Your task to perform on an android device: toggle location history Image 0: 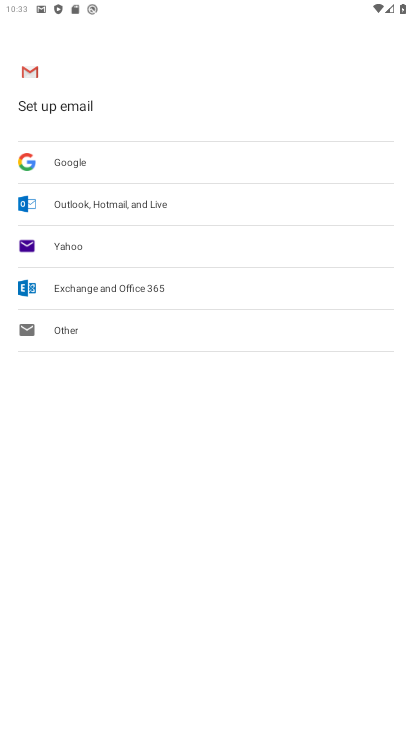
Step 0: press home button
Your task to perform on an android device: toggle location history Image 1: 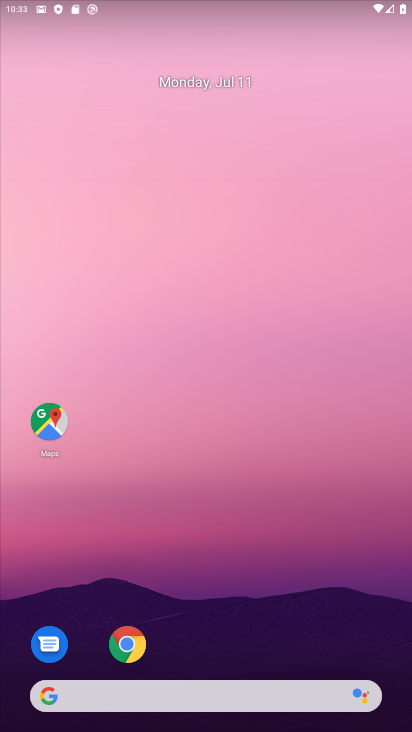
Step 1: drag from (188, 619) to (207, 148)
Your task to perform on an android device: toggle location history Image 2: 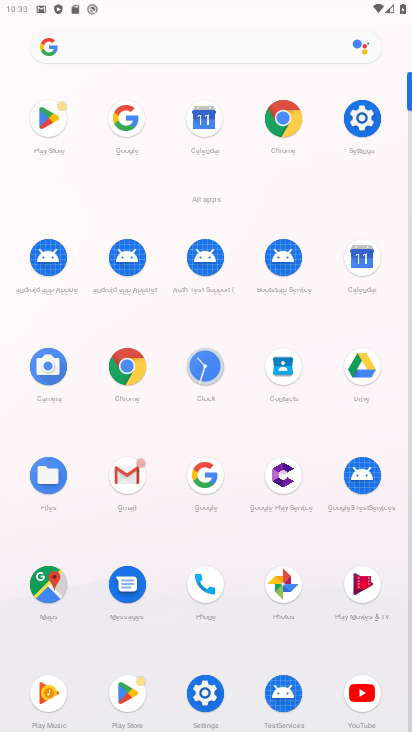
Step 2: click (372, 125)
Your task to perform on an android device: toggle location history Image 3: 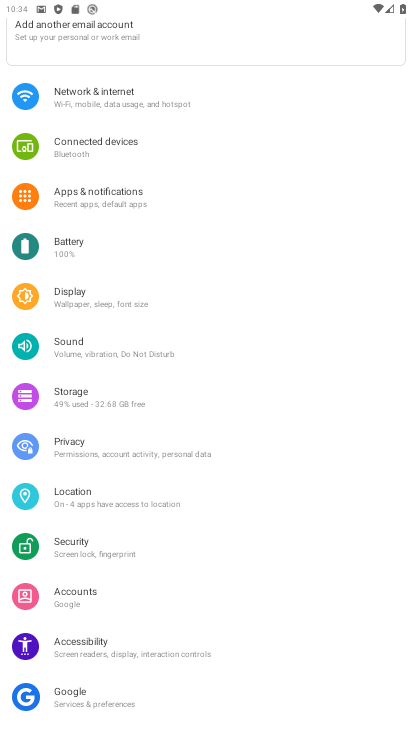
Step 3: click (116, 499)
Your task to perform on an android device: toggle location history Image 4: 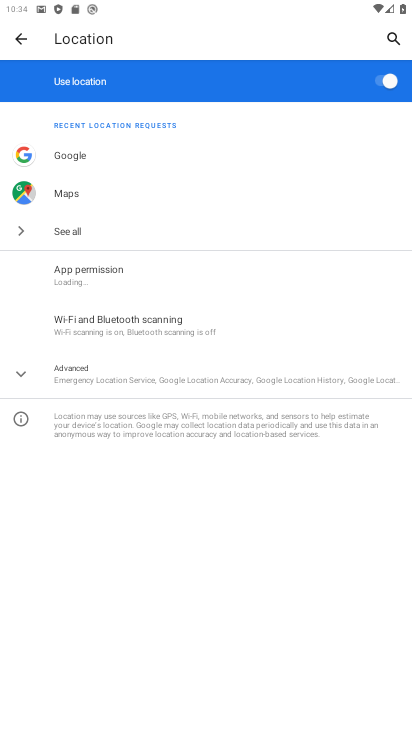
Step 4: click (141, 365)
Your task to perform on an android device: toggle location history Image 5: 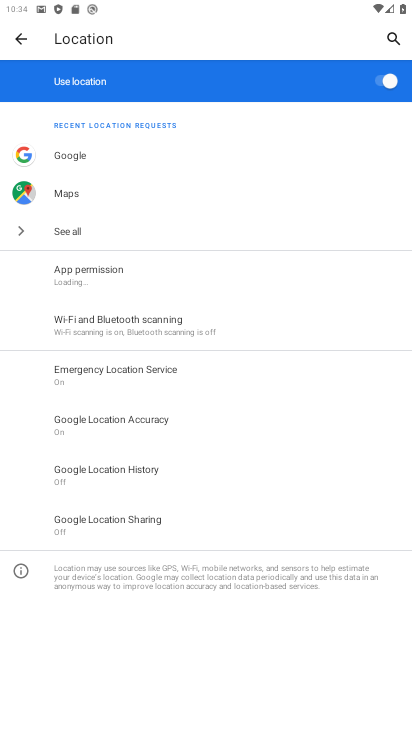
Step 5: click (154, 479)
Your task to perform on an android device: toggle location history Image 6: 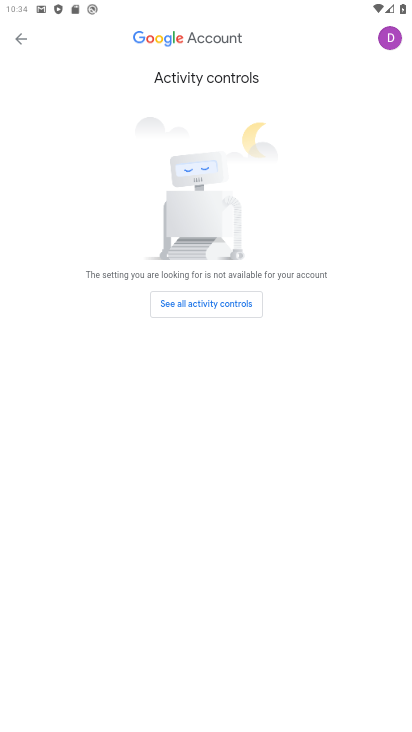
Step 6: click (242, 303)
Your task to perform on an android device: toggle location history Image 7: 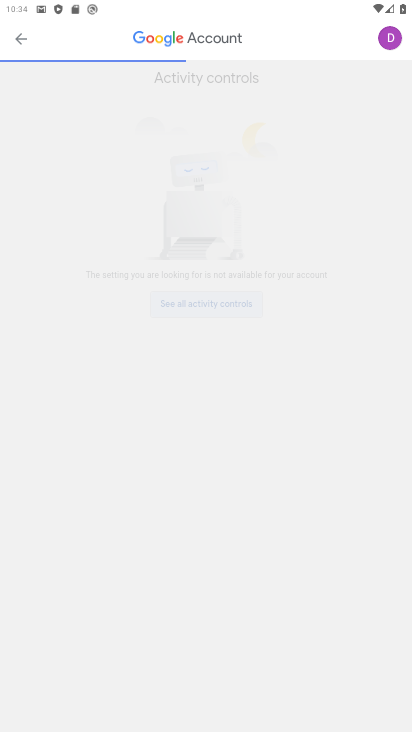
Step 7: click (242, 303)
Your task to perform on an android device: toggle location history Image 8: 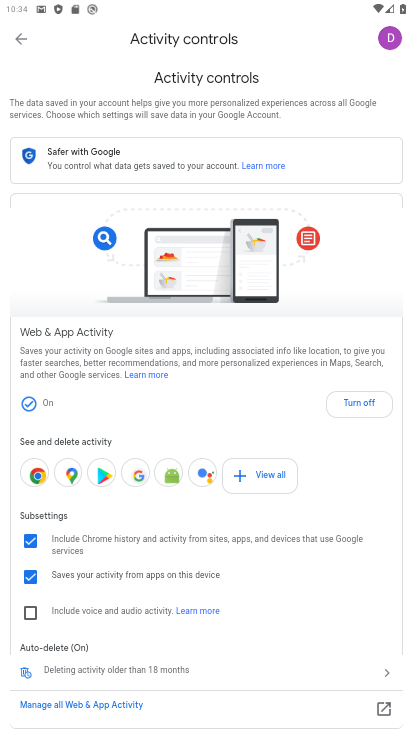
Step 8: click (363, 407)
Your task to perform on an android device: toggle location history Image 9: 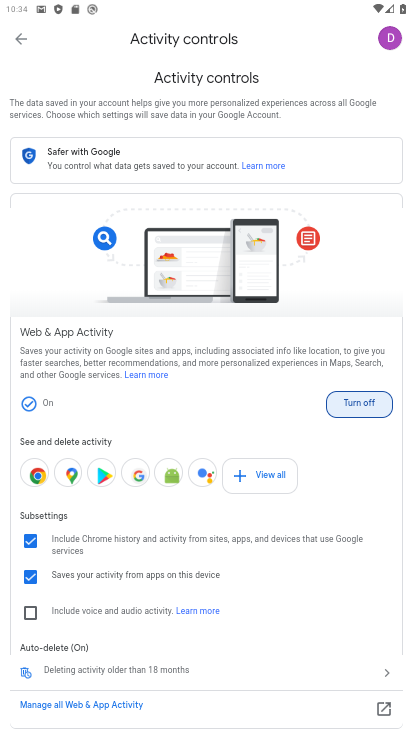
Step 9: task complete